Your task to perform on an android device: turn off improve location accuracy Image 0: 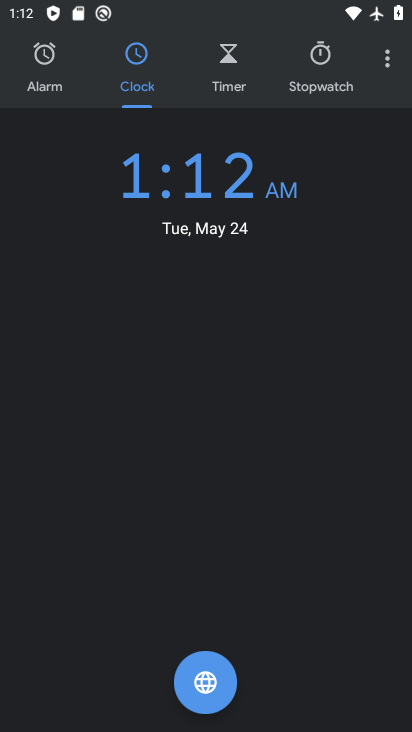
Step 0: press home button
Your task to perform on an android device: turn off improve location accuracy Image 1: 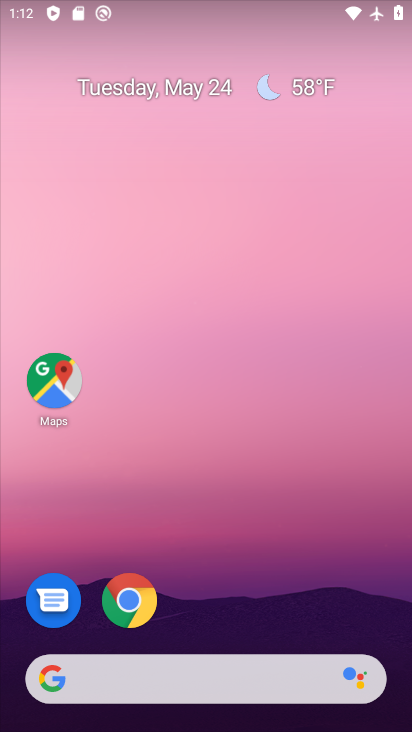
Step 1: drag from (308, 552) to (114, 41)
Your task to perform on an android device: turn off improve location accuracy Image 2: 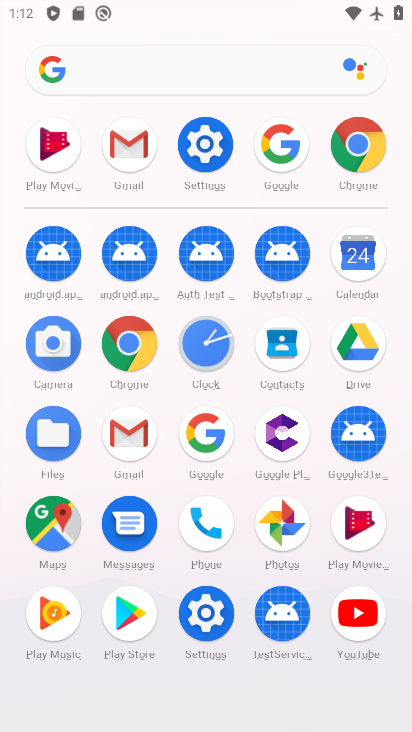
Step 2: click (204, 145)
Your task to perform on an android device: turn off improve location accuracy Image 3: 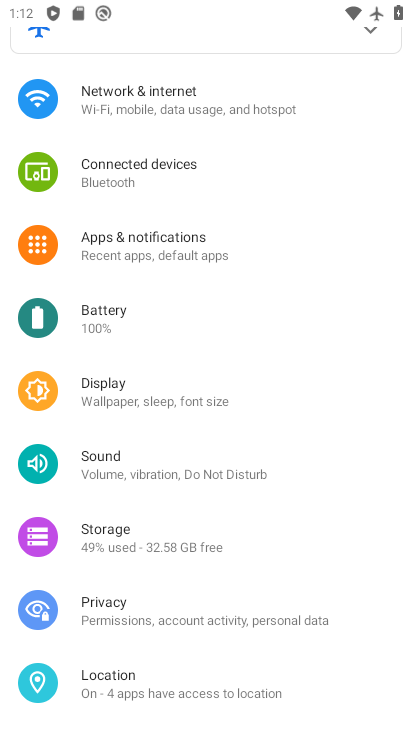
Step 3: click (199, 679)
Your task to perform on an android device: turn off improve location accuracy Image 4: 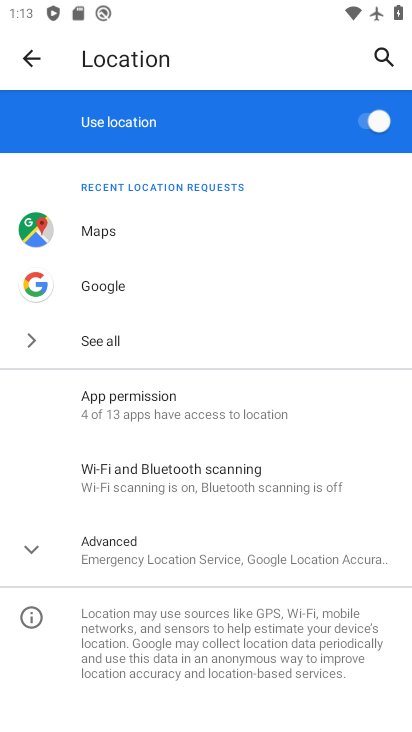
Step 4: click (201, 550)
Your task to perform on an android device: turn off improve location accuracy Image 5: 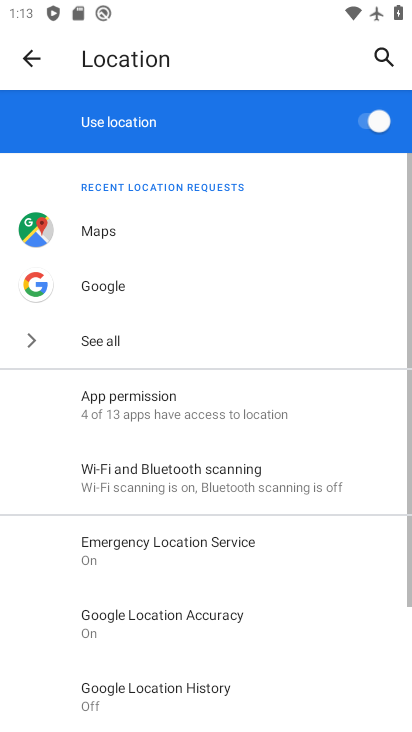
Step 5: click (246, 615)
Your task to perform on an android device: turn off improve location accuracy Image 6: 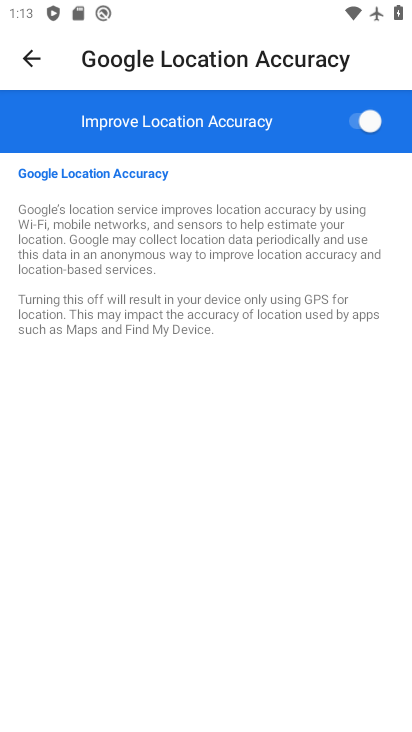
Step 6: click (355, 133)
Your task to perform on an android device: turn off improve location accuracy Image 7: 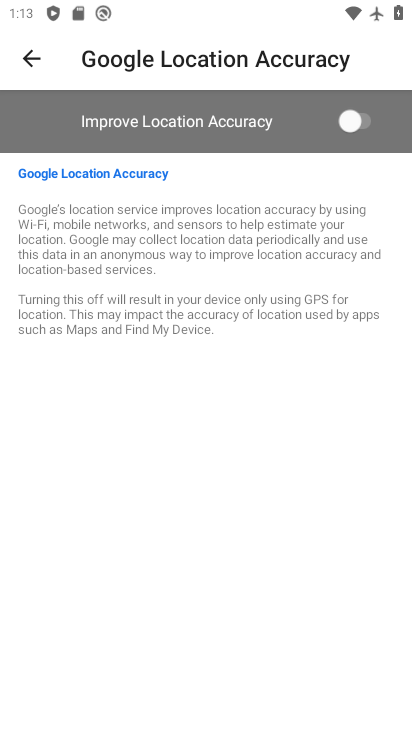
Step 7: task complete